Your task to perform on an android device: Open my contact list Image 0: 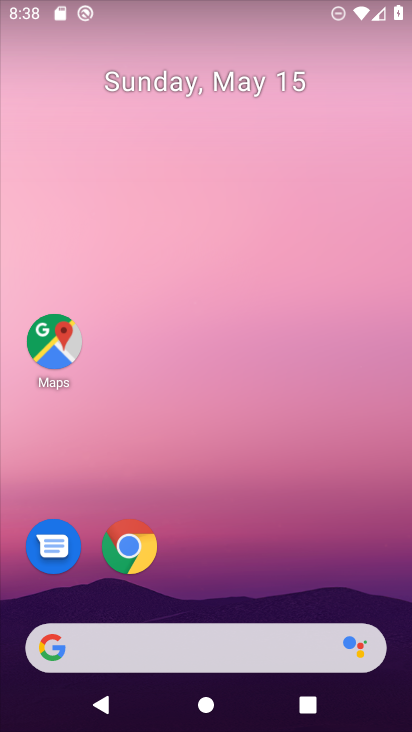
Step 0: drag from (219, 582) to (214, 66)
Your task to perform on an android device: Open my contact list Image 1: 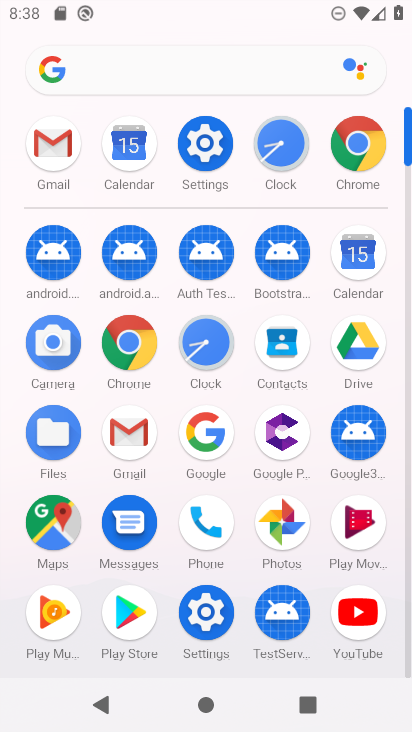
Step 1: click (275, 327)
Your task to perform on an android device: Open my contact list Image 2: 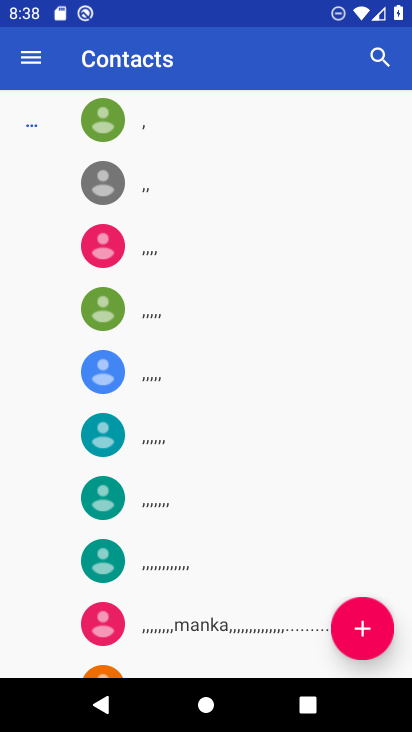
Step 2: task complete